Your task to perform on an android device: Open the Play Movies app and select the watchlist tab. Image 0: 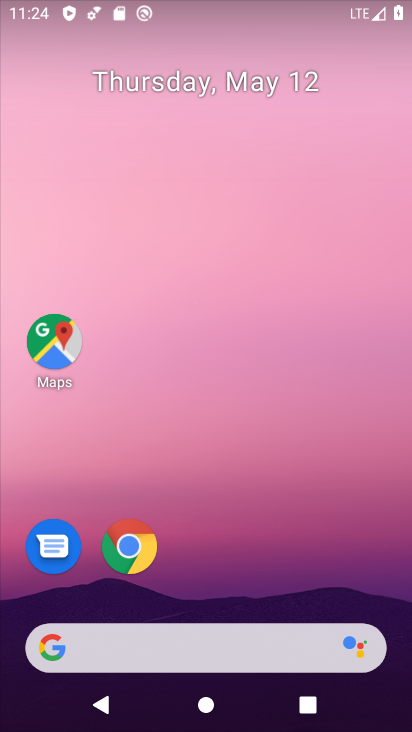
Step 0: drag from (247, 533) to (145, 54)
Your task to perform on an android device: Open the Play Movies app and select the watchlist tab. Image 1: 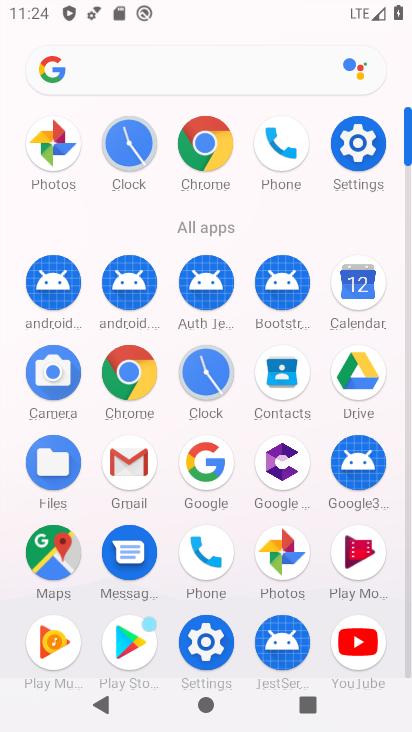
Step 1: click (358, 558)
Your task to perform on an android device: Open the Play Movies app and select the watchlist tab. Image 2: 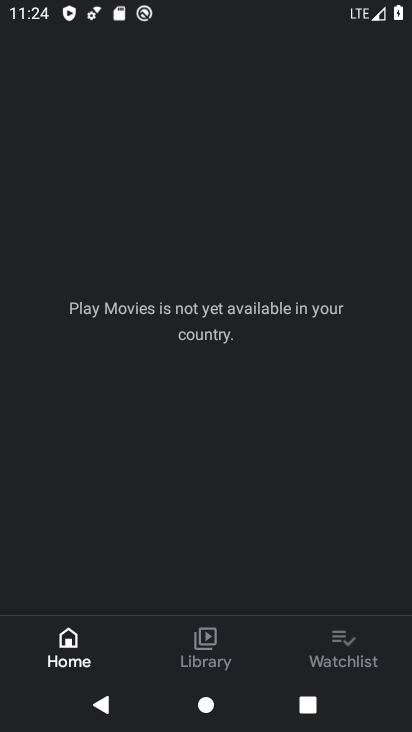
Step 2: click (347, 644)
Your task to perform on an android device: Open the Play Movies app and select the watchlist tab. Image 3: 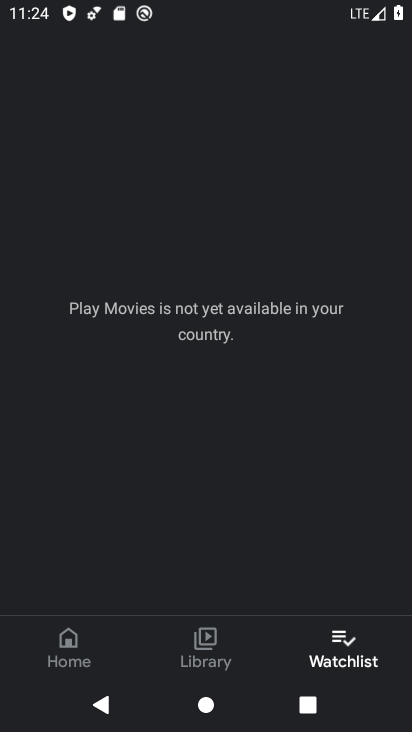
Step 3: task complete